Your task to perform on an android device: Open battery settings Image 0: 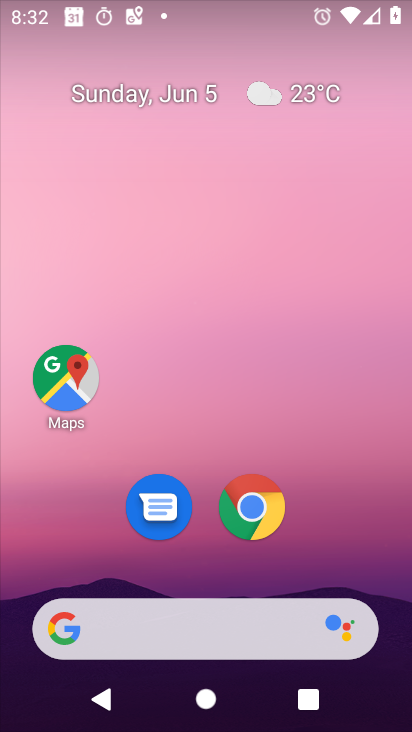
Step 0: drag from (249, 687) to (181, 190)
Your task to perform on an android device: Open battery settings Image 1: 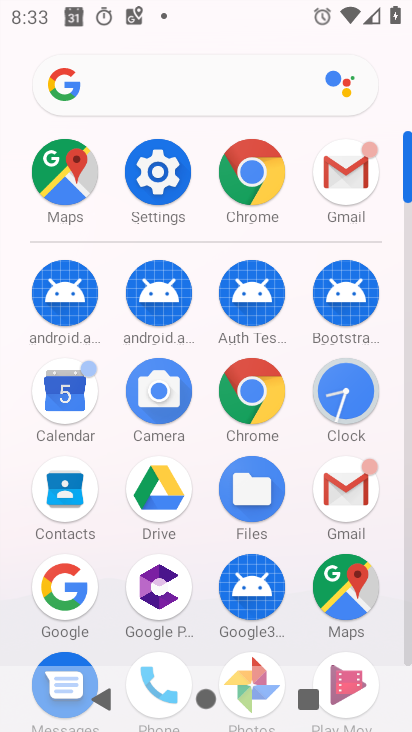
Step 1: click (169, 163)
Your task to perform on an android device: Open battery settings Image 2: 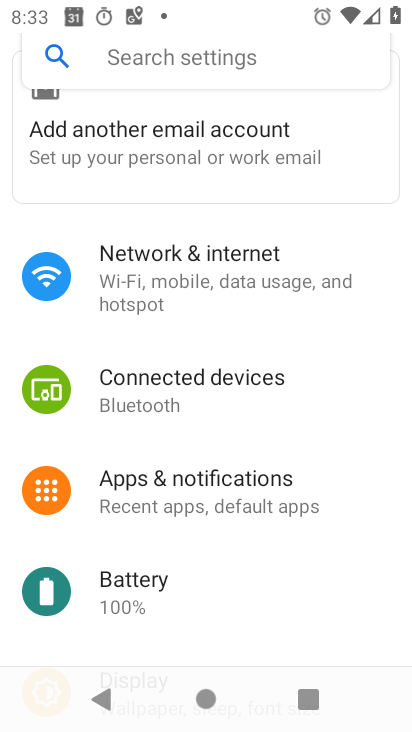
Step 2: click (167, 587)
Your task to perform on an android device: Open battery settings Image 3: 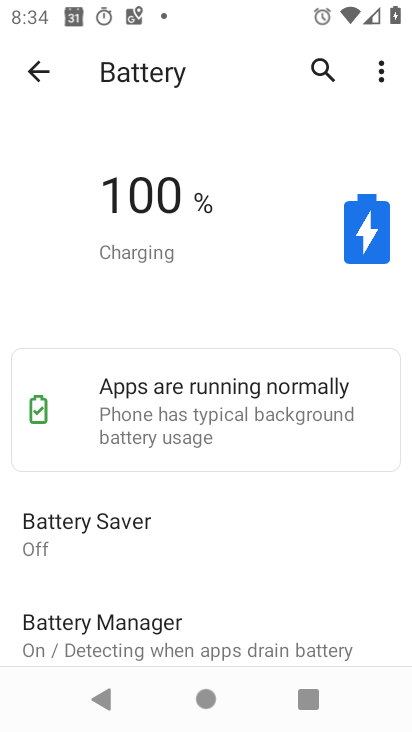
Step 3: task complete